Your task to perform on an android device: empty trash in google photos Image 0: 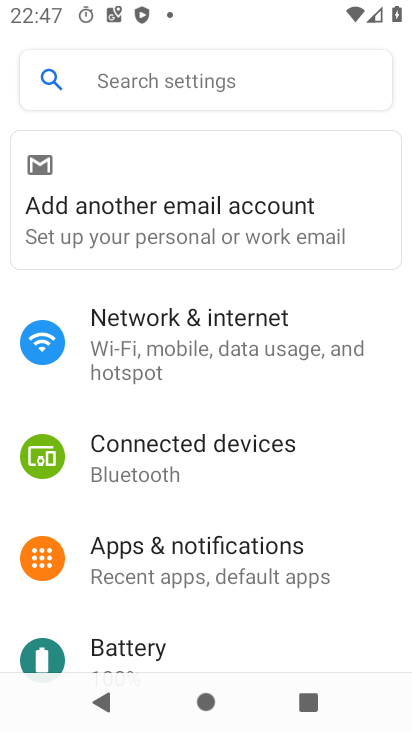
Step 0: press home button
Your task to perform on an android device: empty trash in google photos Image 1: 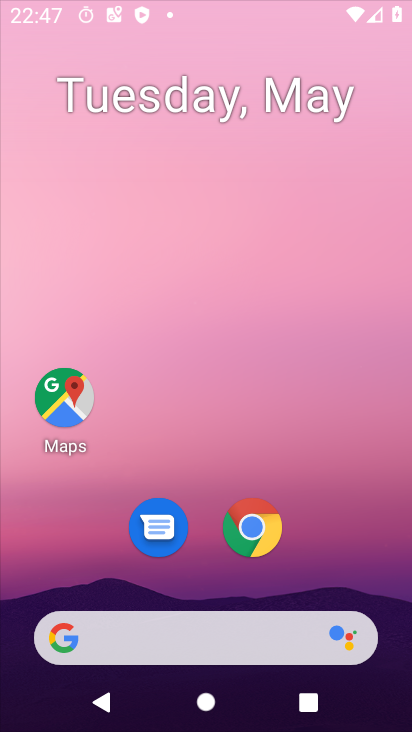
Step 1: drag from (168, 710) to (258, 136)
Your task to perform on an android device: empty trash in google photos Image 2: 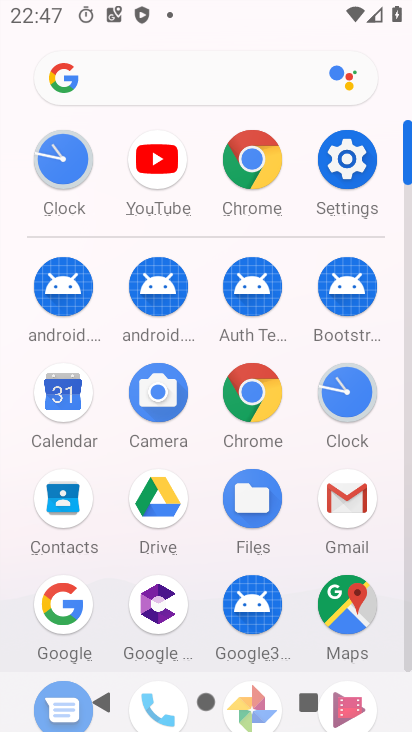
Step 2: drag from (205, 642) to (186, 327)
Your task to perform on an android device: empty trash in google photos Image 3: 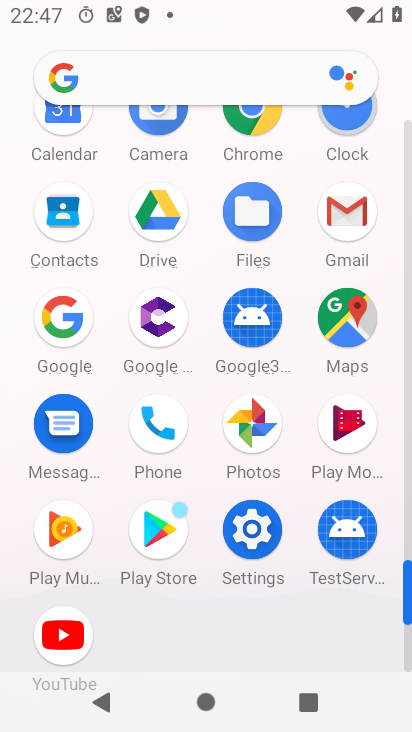
Step 3: click (251, 424)
Your task to perform on an android device: empty trash in google photos Image 4: 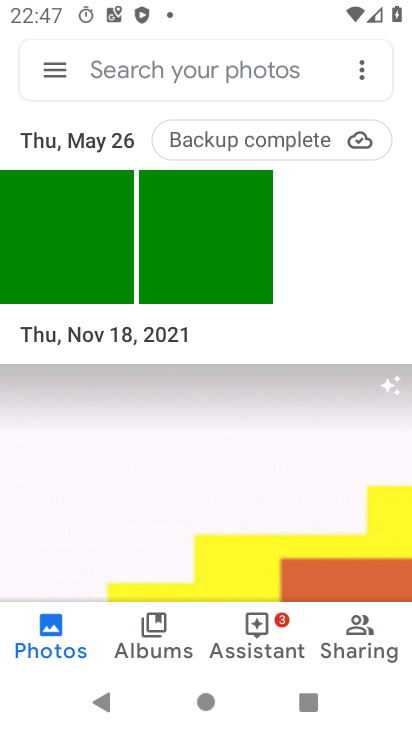
Step 4: click (56, 75)
Your task to perform on an android device: empty trash in google photos Image 5: 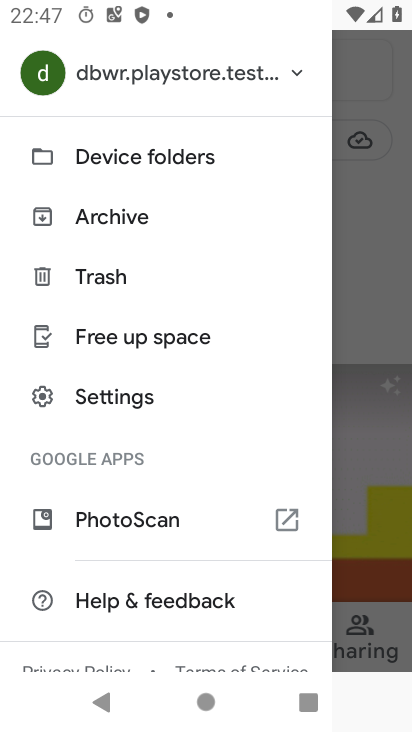
Step 5: click (128, 273)
Your task to perform on an android device: empty trash in google photos Image 6: 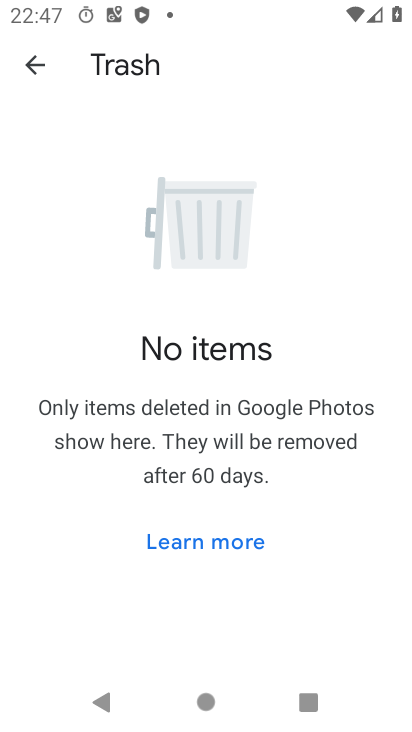
Step 6: task complete